Your task to perform on an android device: Open wifi settings Image 0: 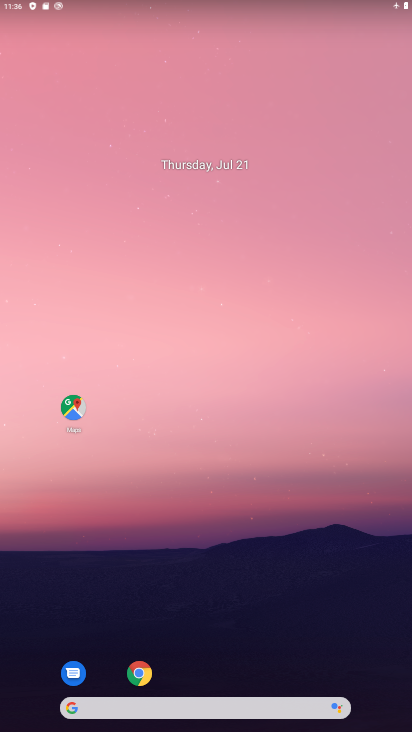
Step 0: drag from (190, 658) to (226, 93)
Your task to perform on an android device: Open wifi settings Image 1: 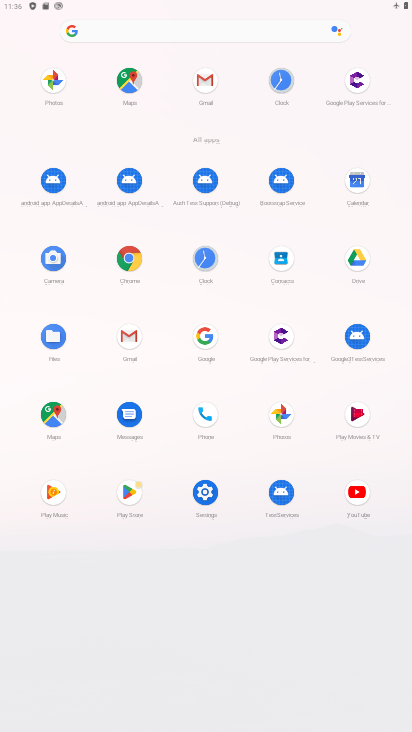
Step 1: click (204, 489)
Your task to perform on an android device: Open wifi settings Image 2: 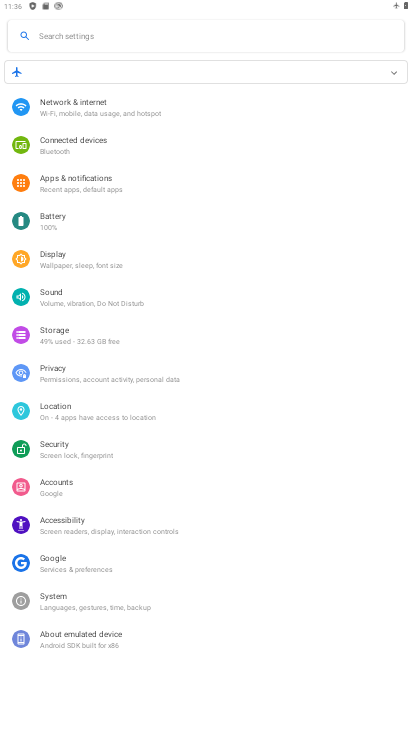
Step 2: click (107, 110)
Your task to perform on an android device: Open wifi settings Image 3: 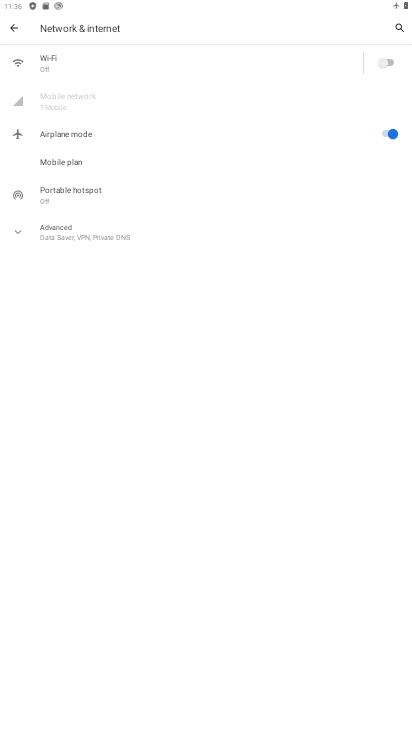
Step 3: click (78, 49)
Your task to perform on an android device: Open wifi settings Image 4: 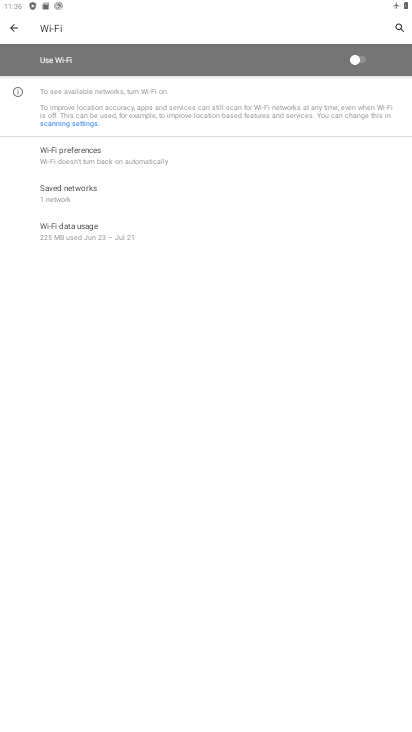
Step 4: task complete